Your task to perform on an android device: toggle translation in the chrome app Image 0: 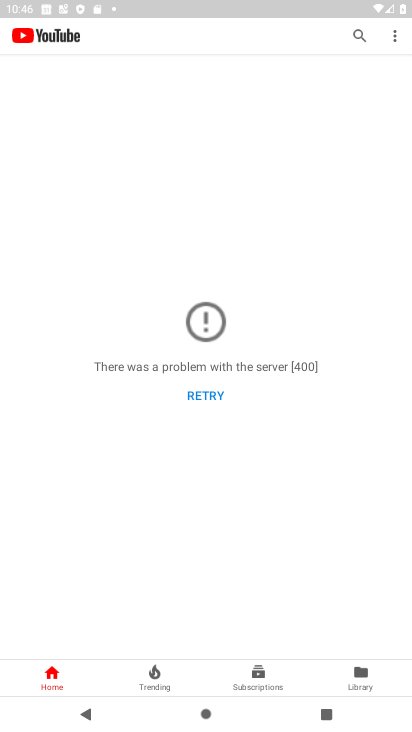
Step 0: press home button
Your task to perform on an android device: toggle translation in the chrome app Image 1: 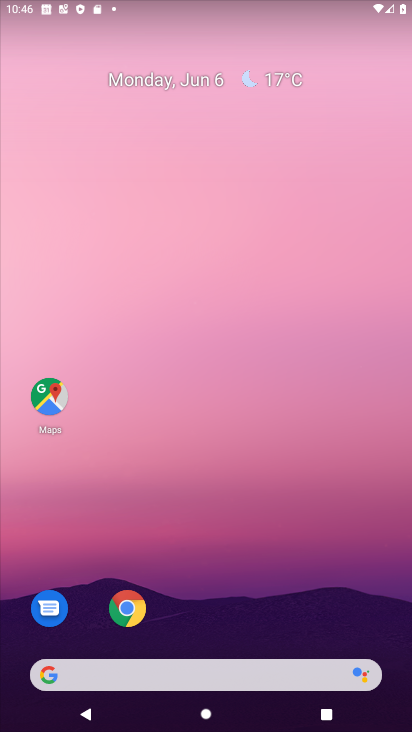
Step 1: click (138, 606)
Your task to perform on an android device: toggle translation in the chrome app Image 2: 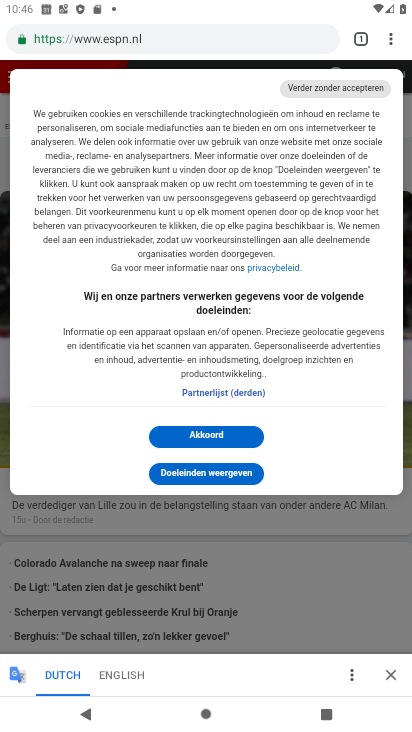
Step 2: click (396, 43)
Your task to perform on an android device: toggle translation in the chrome app Image 3: 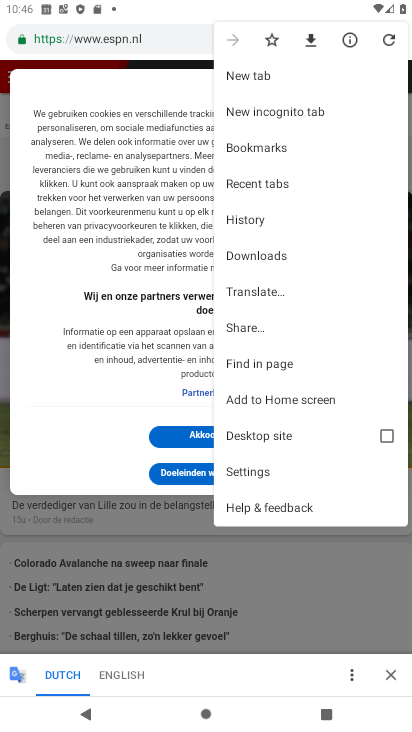
Step 3: click (271, 472)
Your task to perform on an android device: toggle translation in the chrome app Image 4: 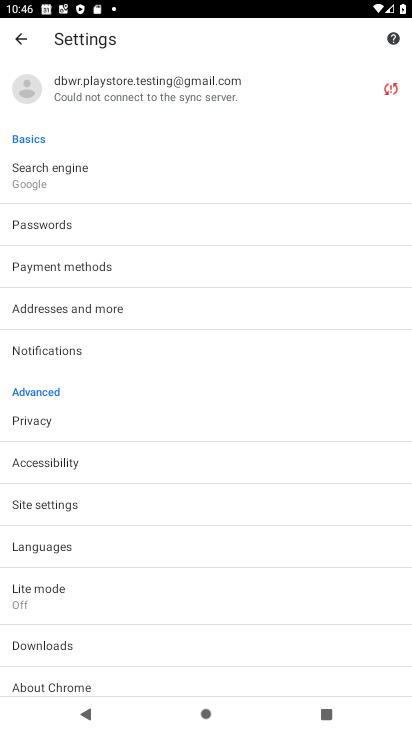
Step 4: click (96, 550)
Your task to perform on an android device: toggle translation in the chrome app Image 5: 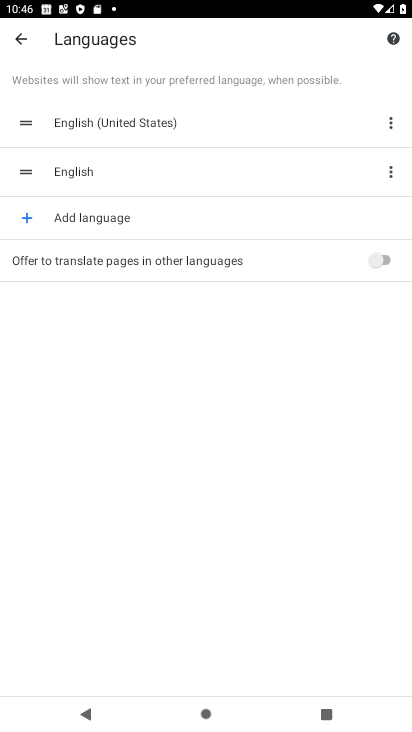
Step 5: click (387, 264)
Your task to perform on an android device: toggle translation in the chrome app Image 6: 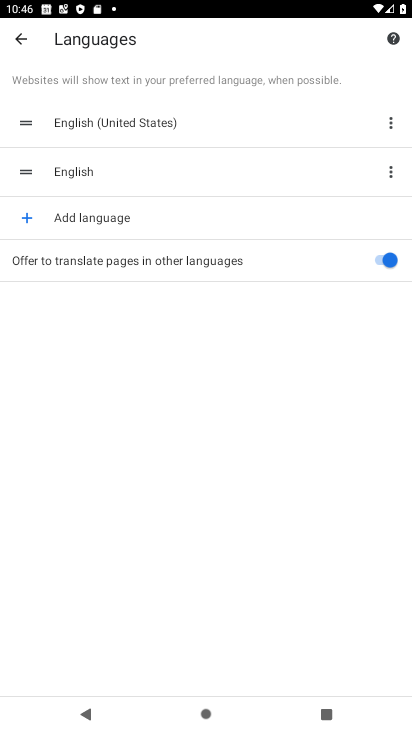
Step 6: task complete